Your task to perform on an android device: Turn on the flashlight Image 0: 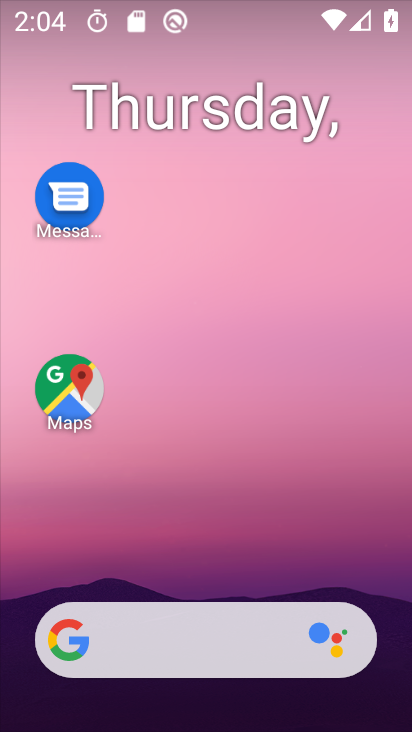
Step 0: drag from (121, 588) to (212, 141)
Your task to perform on an android device: Turn on the flashlight Image 1: 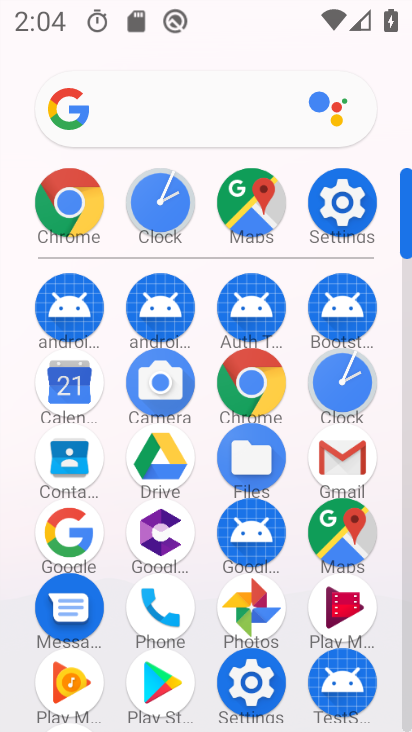
Step 1: click (339, 203)
Your task to perform on an android device: Turn on the flashlight Image 2: 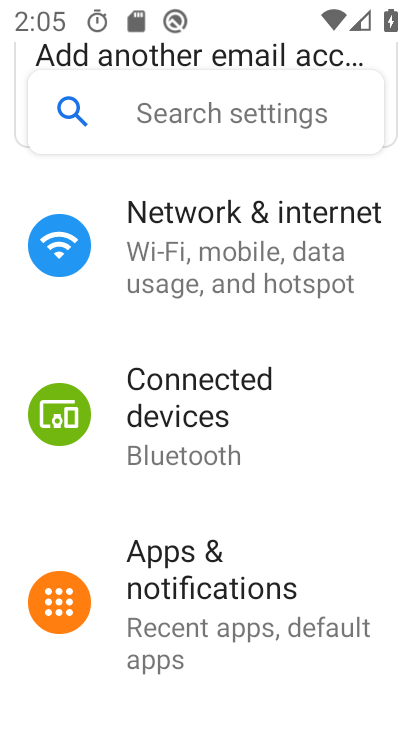
Step 2: drag from (181, 331) to (190, 587)
Your task to perform on an android device: Turn on the flashlight Image 3: 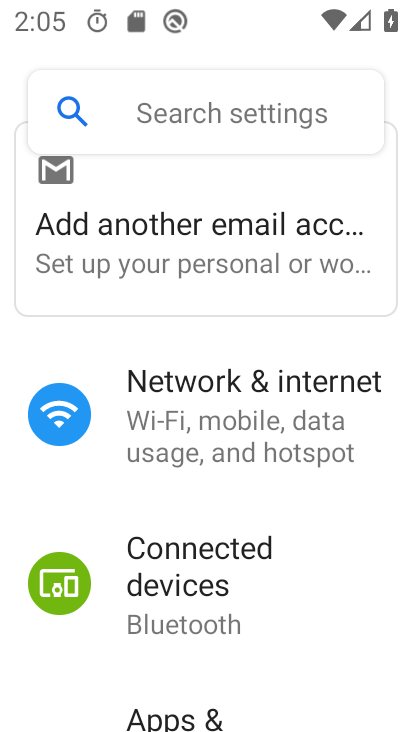
Step 3: drag from (154, 645) to (213, 285)
Your task to perform on an android device: Turn on the flashlight Image 4: 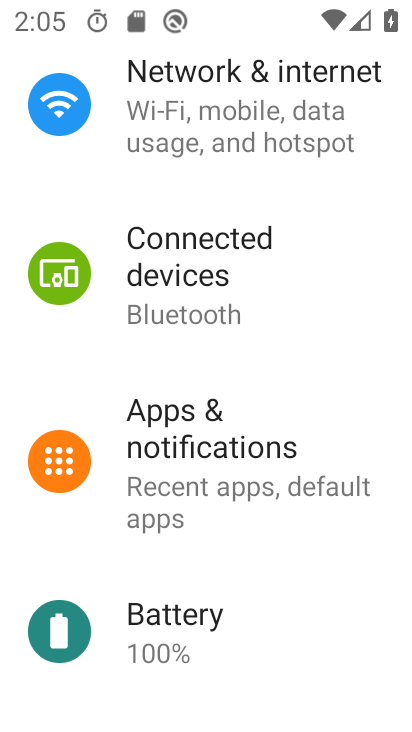
Step 4: drag from (188, 654) to (257, 309)
Your task to perform on an android device: Turn on the flashlight Image 5: 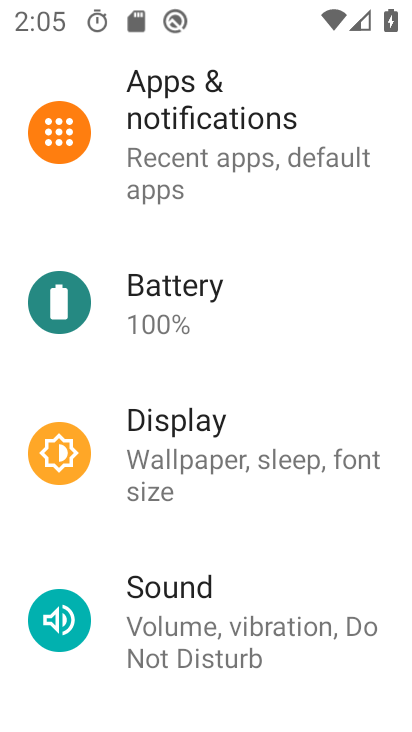
Step 5: click (175, 456)
Your task to perform on an android device: Turn on the flashlight Image 6: 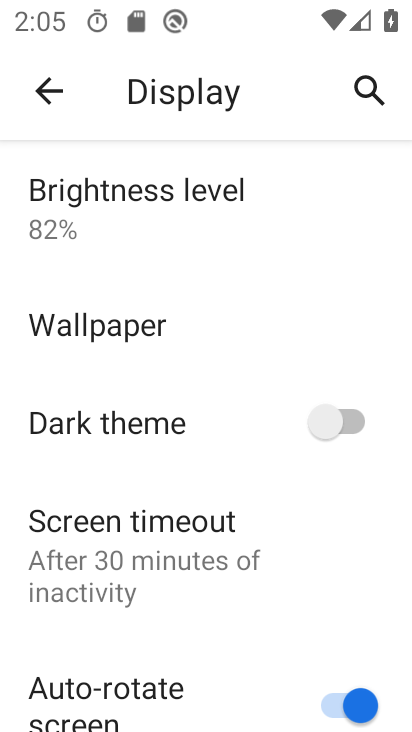
Step 6: task complete